Your task to perform on an android device: empty trash in the gmail app Image 0: 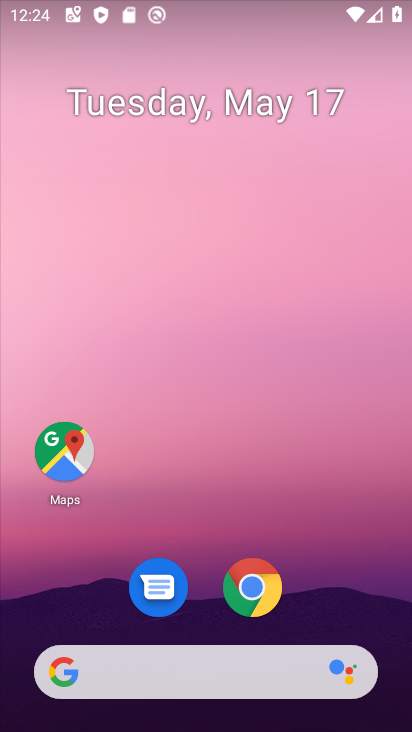
Step 0: drag from (214, 625) to (233, 4)
Your task to perform on an android device: empty trash in the gmail app Image 1: 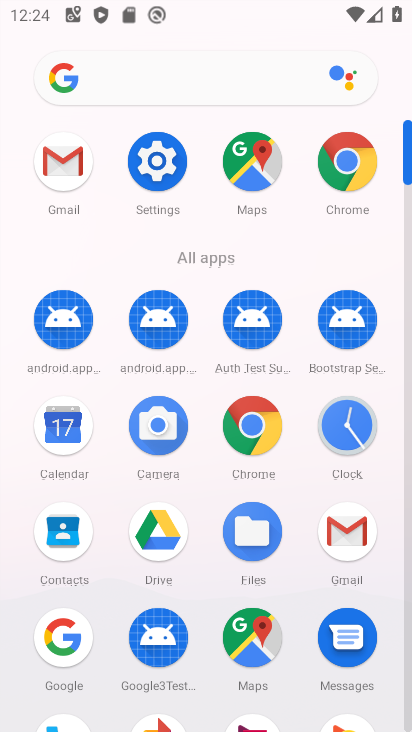
Step 1: click (343, 505)
Your task to perform on an android device: empty trash in the gmail app Image 2: 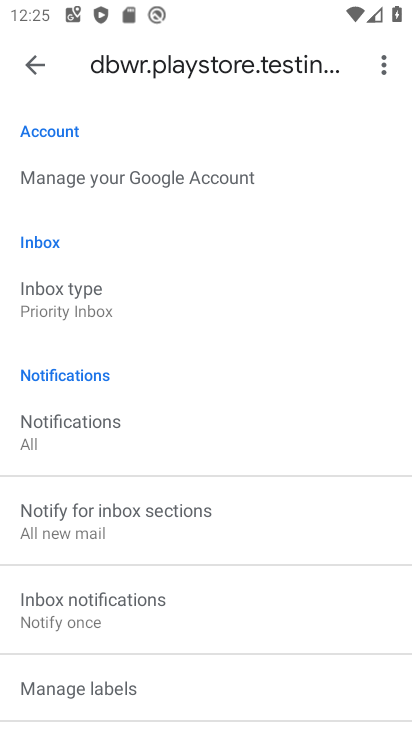
Step 2: press home button
Your task to perform on an android device: empty trash in the gmail app Image 3: 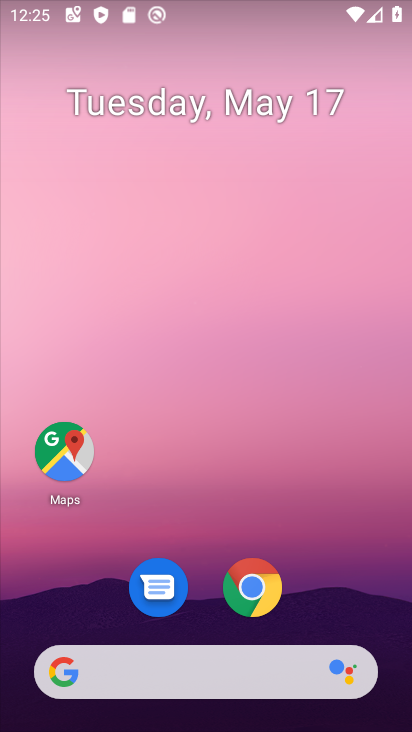
Step 3: drag from (196, 631) to (146, 6)
Your task to perform on an android device: empty trash in the gmail app Image 4: 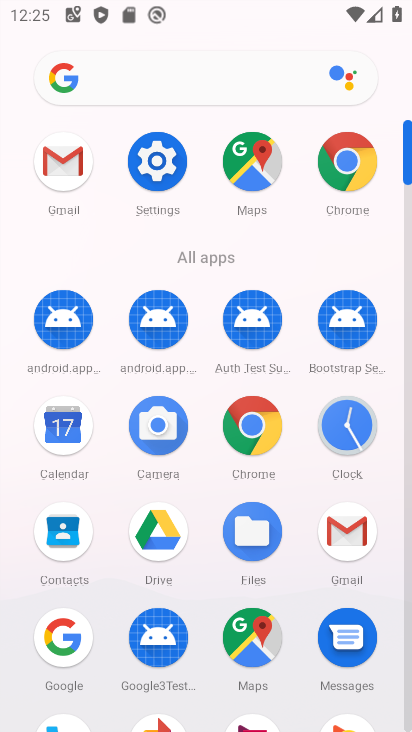
Step 4: click (337, 537)
Your task to perform on an android device: empty trash in the gmail app Image 5: 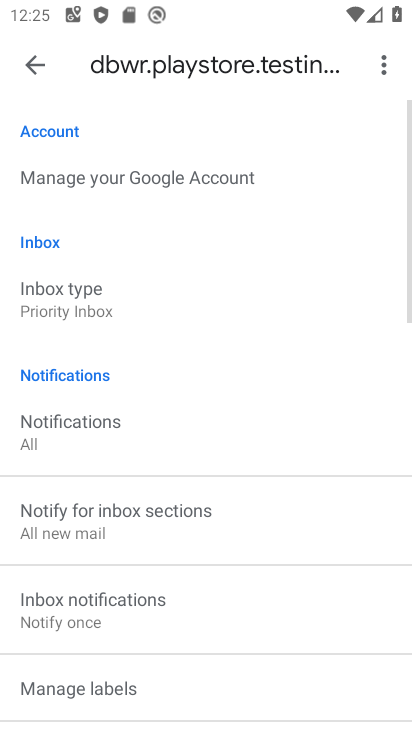
Step 5: click (40, 69)
Your task to perform on an android device: empty trash in the gmail app Image 6: 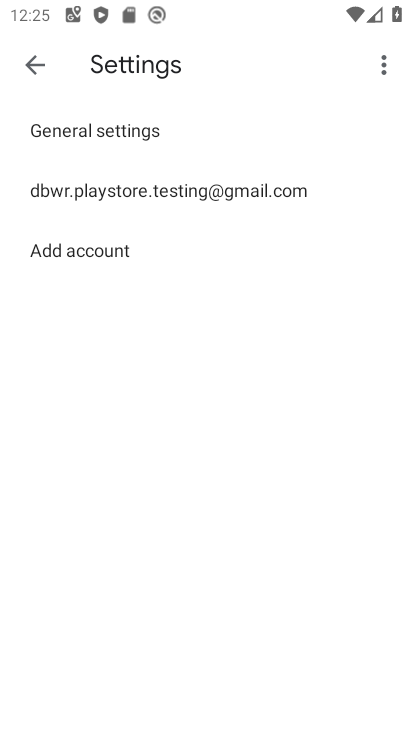
Step 6: click (20, 63)
Your task to perform on an android device: empty trash in the gmail app Image 7: 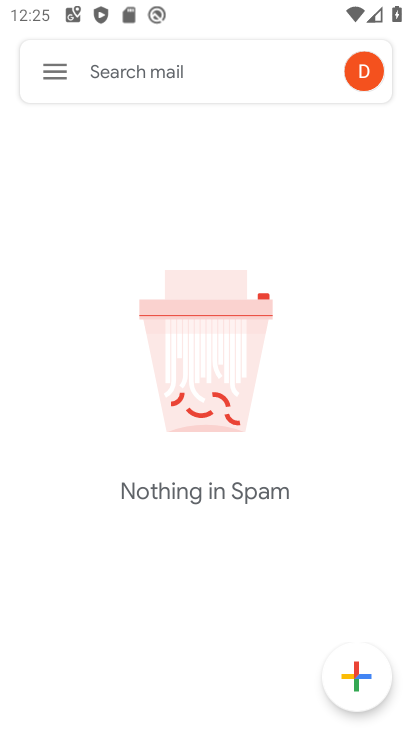
Step 7: click (33, 69)
Your task to perform on an android device: empty trash in the gmail app Image 8: 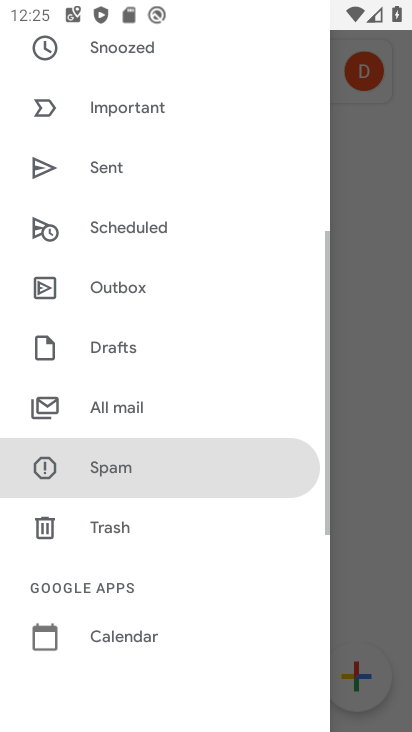
Step 8: click (98, 524)
Your task to perform on an android device: empty trash in the gmail app Image 9: 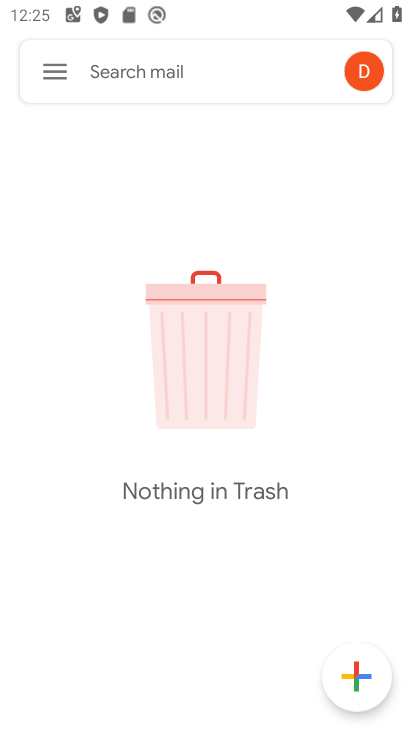
Step 9: task complete